Your task to perform on an android device: See recent photos Image 0: 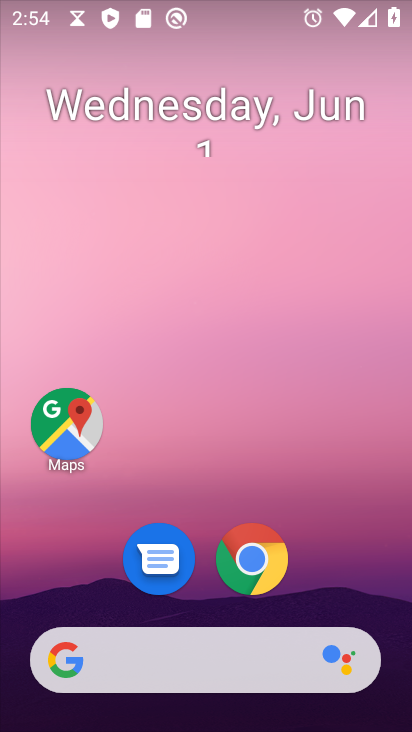
Step 0: drag from (335, 587) to (338, 32)
Your task to perform on an android device: See recent photos Image 1: 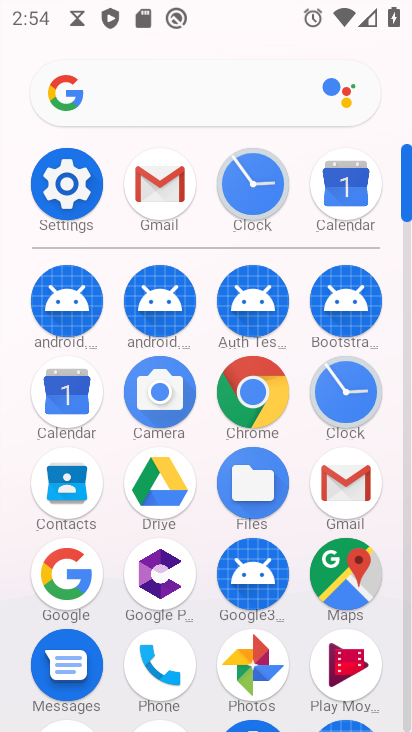
Step 1: click (250, 659)
Your task to perform on an android device: See recent photos Image 2: 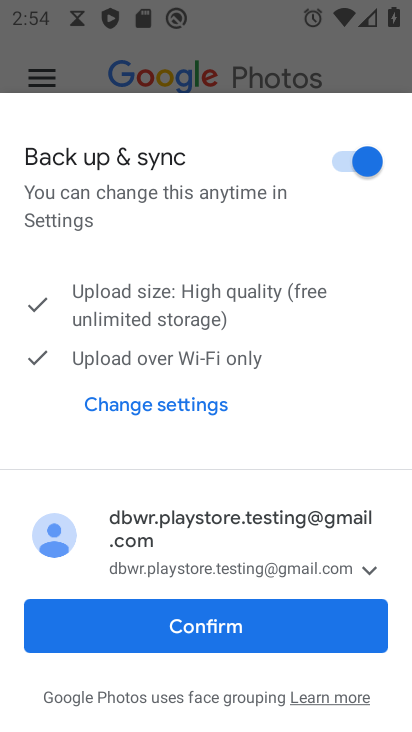
Step 2: click (221, 632)
Your task to perform on an android device: See recent photos Image 3: 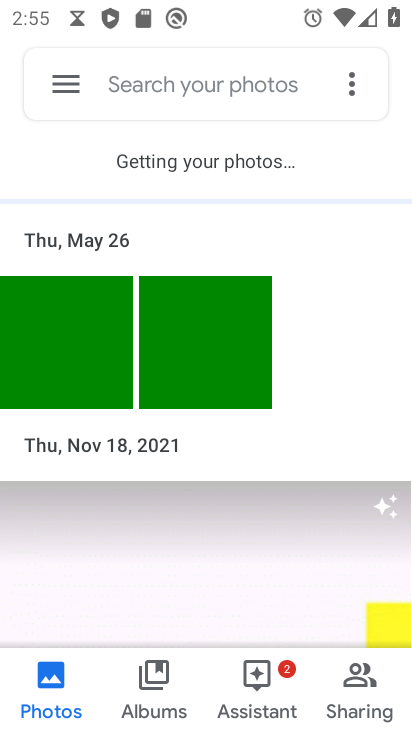
Step 3: task complete